Your task to perform on an android device: open wifi settings Image 0: 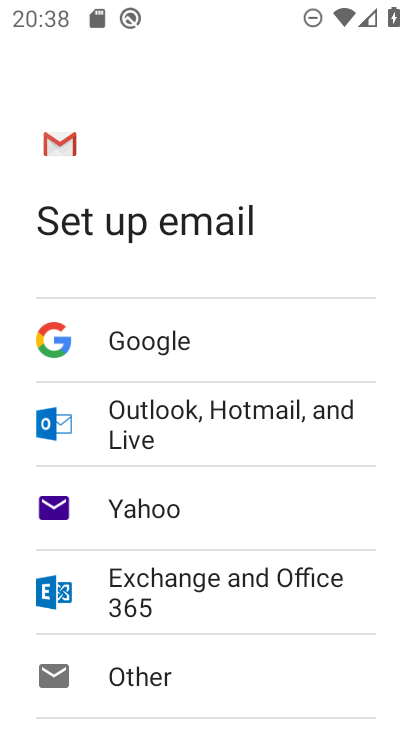
Step 0: press home button
Your task to perform on an android device: open wifi settings Image 1: 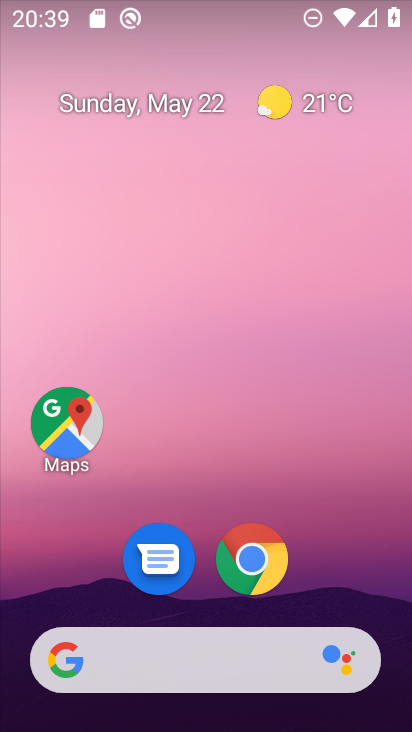
Step 1: drag from (277, 690) to (208, 65)
Your task to perform on an android device: open wifi settings Image 2: 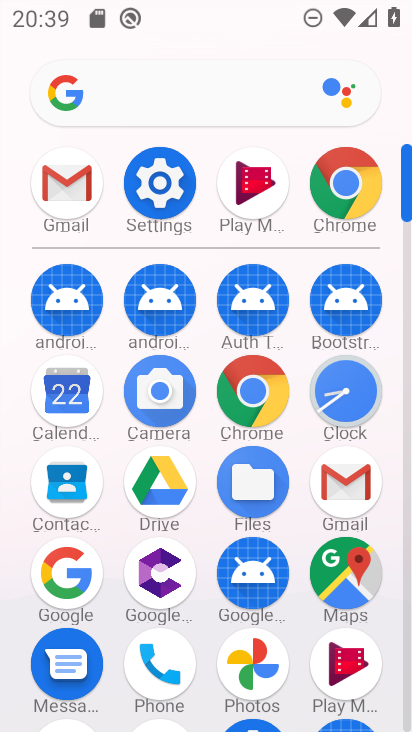
Step 2: click (185, 187)
Your task to perform on an android device: open wifi settings Image 3: 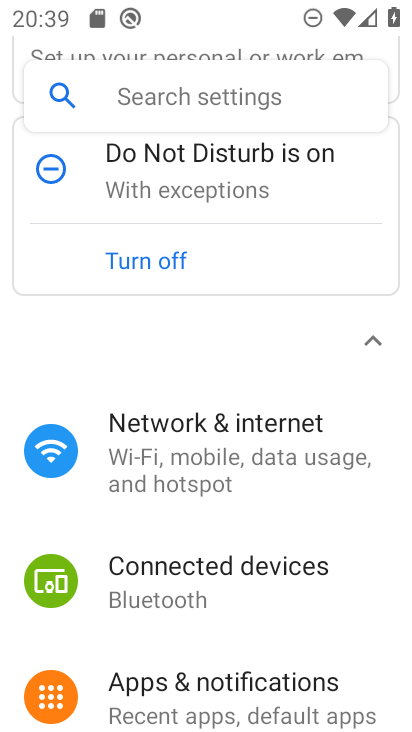
Step 3: click (243, 467)
Your task to perform on an android device: open wifi settings Image 4: 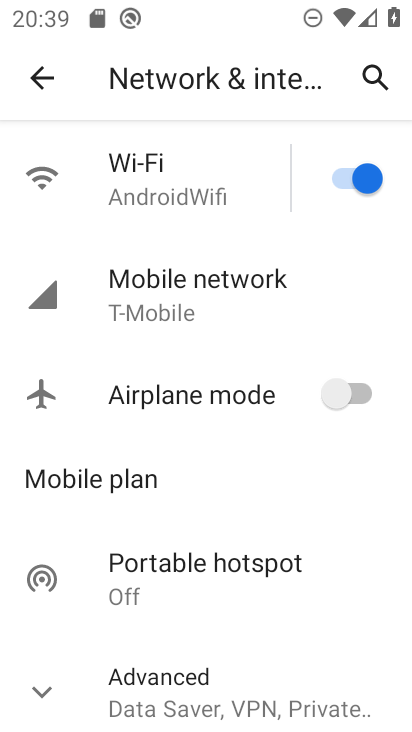
Step 4: click (226, 193)
Your task to perform on an android device: open wifi settings Image 5: 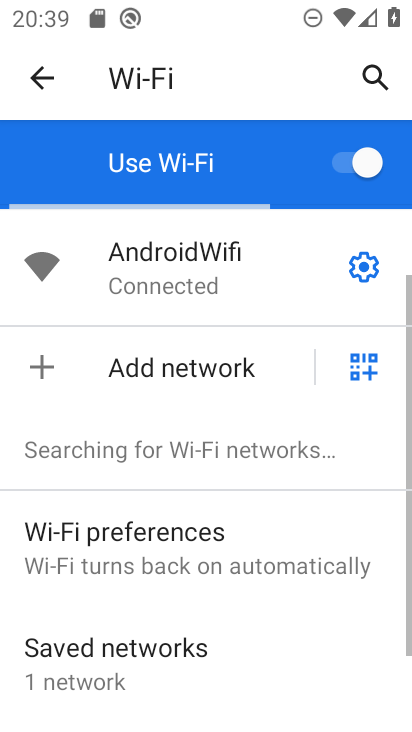
Step 5: task complete